Your task to perform on an android device: Go to CNN.com Image 0: 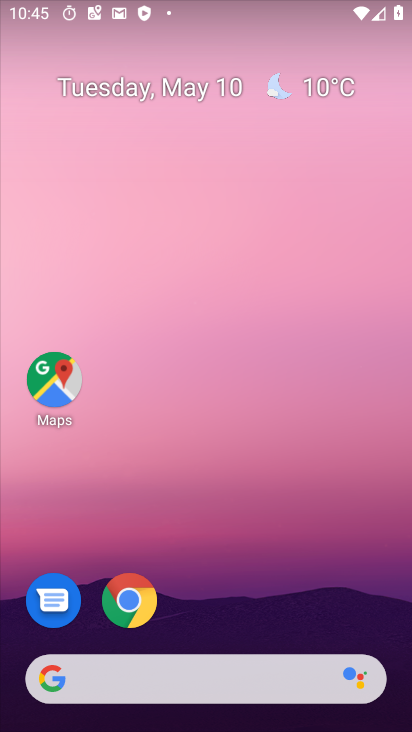
Step 0: drag from (244, 594) to (209, 7)
Your task to perform on an android device: Go to CNN.com Image 1: 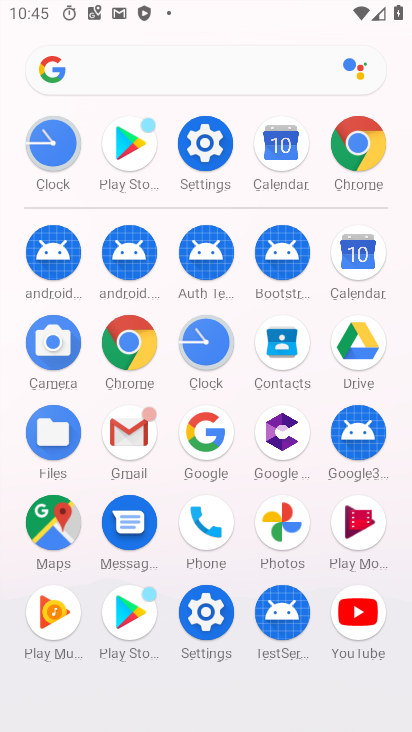
Step 1: drag from (7, 565) to (19, 310)
Your task to perform on an android device: Go to CNN.com Image 2: 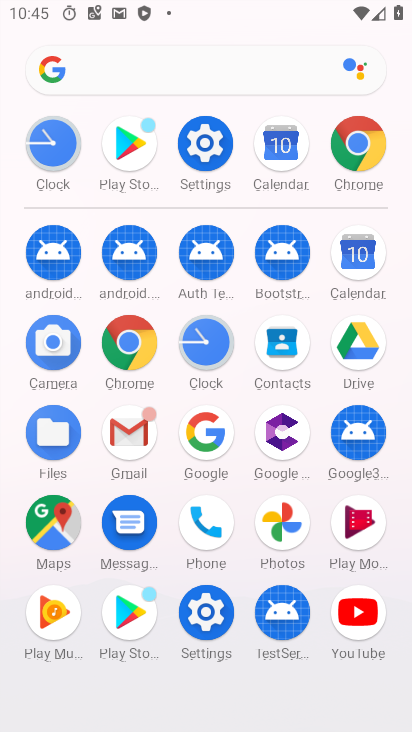
Step 2: click (123, 335)
Your task to perform on an android device: Go to CNN.com Image 3: 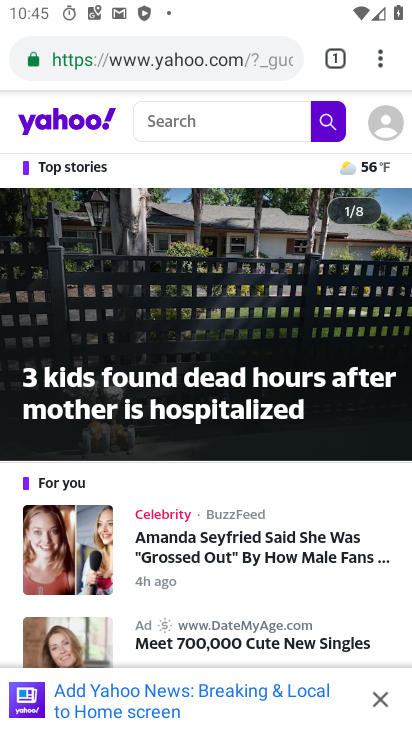
Step 3: click (212, 51)
Your task to perform on an android device: Go to CNN.com Image 4: 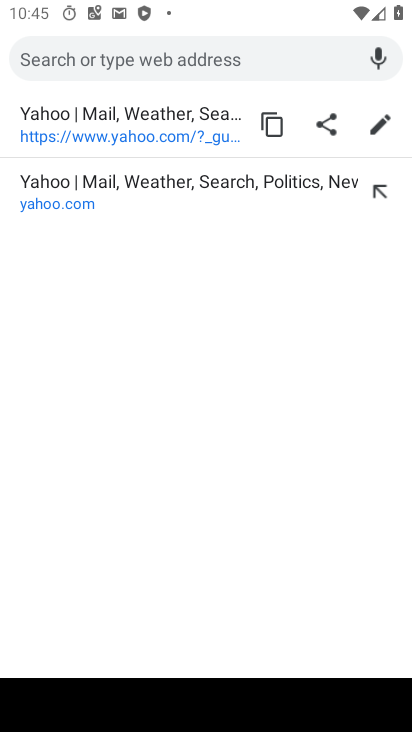
Step 4: type "CNN.com"
Your task to perform on an android device: Go to CNN.com Image 5: 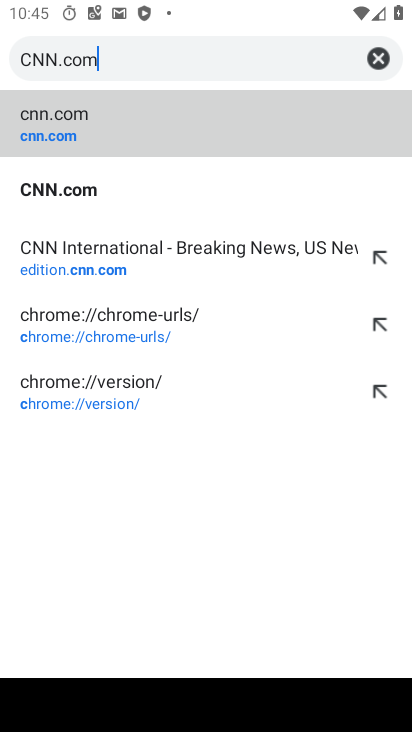
Step 5: type ""
Your task to perform on an android device: Go to CNN.com Image 6: 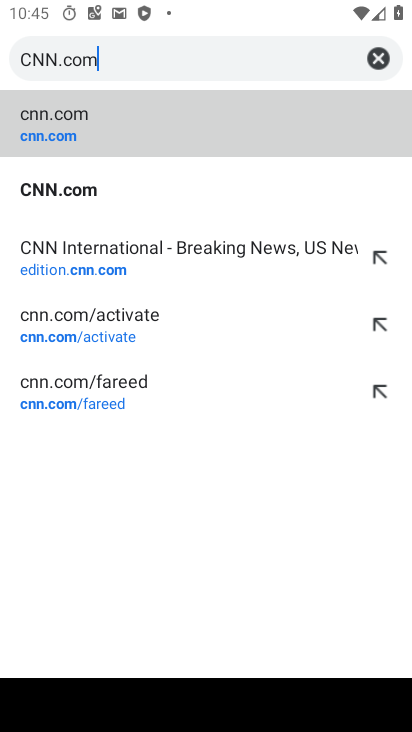
Step 6: click (107, 127)
Your task to perform on an android device: Go to CNN.com Image 7: 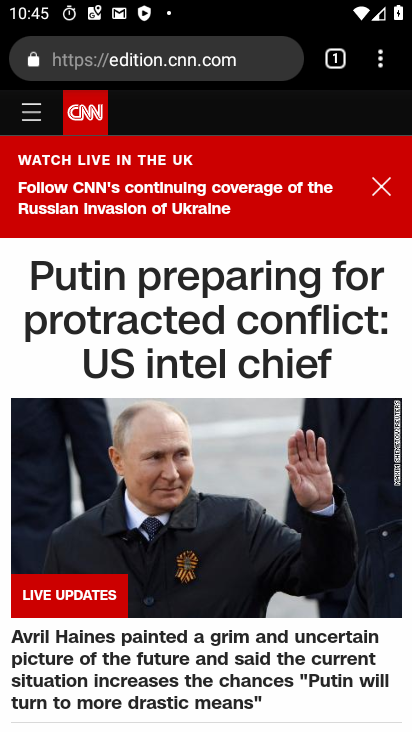
Step 7: task complete